Your task to perform on an android device: Add logitech g903 to the cart on amazon, then select checkout. Image 0: 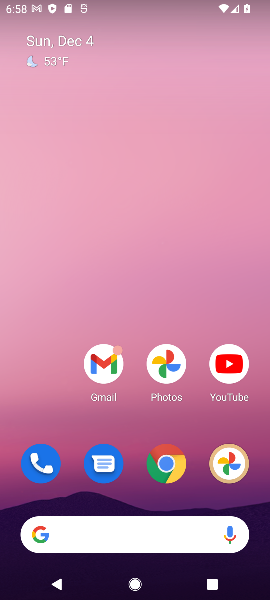
Step 0: click (143, 535)
Your task to perform on an android device: Add logitech g903 to the cart on amazon, then select checkout. Image 1: 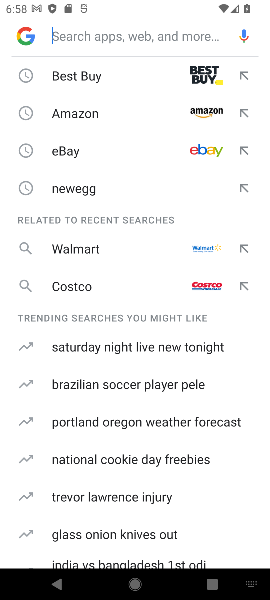
Step 1: click (57, 116)
Your task to perform on an android device: Add logitech g903 to the cart on amazon, then select checkout. Image 2: 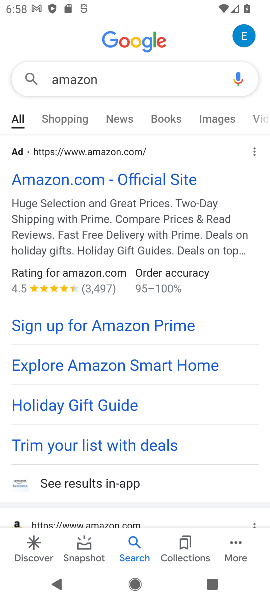
Step 2: click (78, 177)
Your task to perform on an android device: Add logitech g903 to the cart on amazon, then select checkout. Image 3: 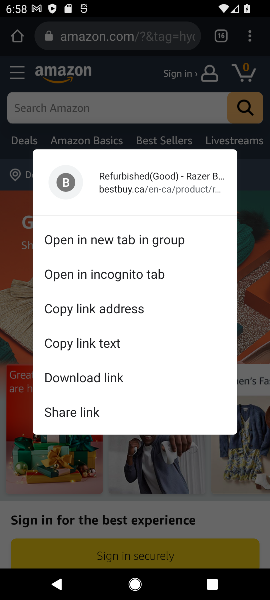
Step 3: click (16, 146)
Your task to perform on an android device: Add logitech g903 to the cart on amazon, then select checkout. Image 4: 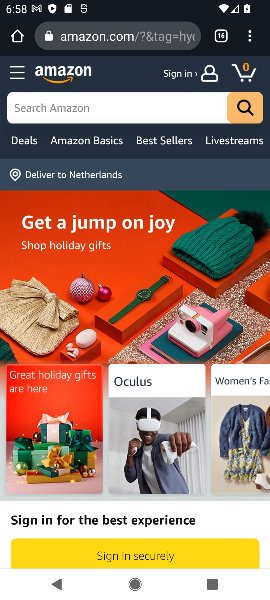
Step 4: click (81, 104)
Your task to perform on an android device: Add logitech g903 to the cart on amazon, then select checkout. Image 5: 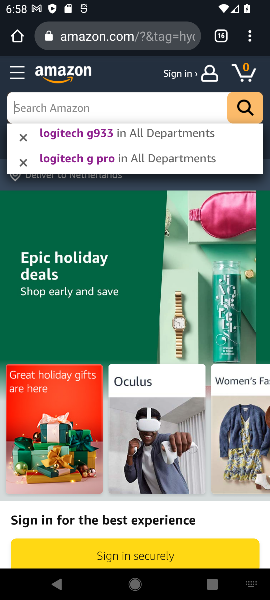
Step 5: type "logitech g903"
Your task to perform on an android device: Add logitech g903 to the cart on amazon, then select checkout. Image 6: 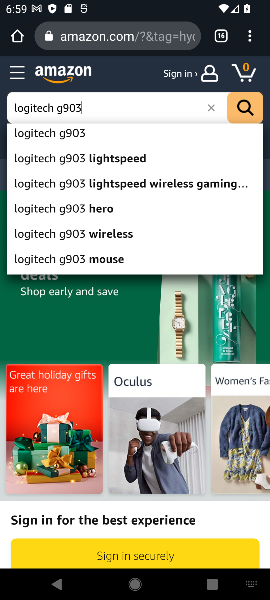
Step 6: click (246, 112)
Your task to perform on an android device: Add logitech g903 to the cart on amazon, then select checkout. Image 7: 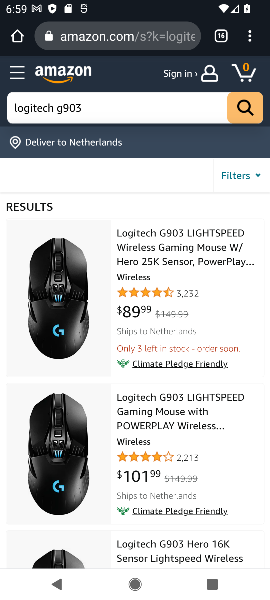
Step 7: click (231, 255)
Your task to perform on an android device: Add logitech g903 to the cart on amazon, then select checkout. Image 8: 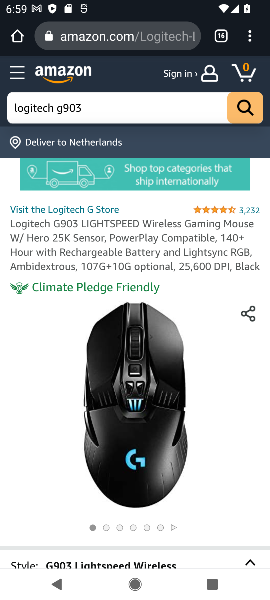
Step 8: drag from (213, 461) to (198, 253)
Your task to perform on an android device: Add logitech g903 to the cart on amazon, then select checkout. Image 9: 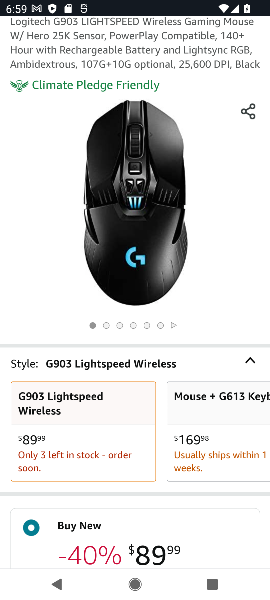
Step 9: drag from (211, 511) to (207, 388)
Your task to perform on an android device: Add logitech g903 to the cart on amazon, then select checkout. Image 10: 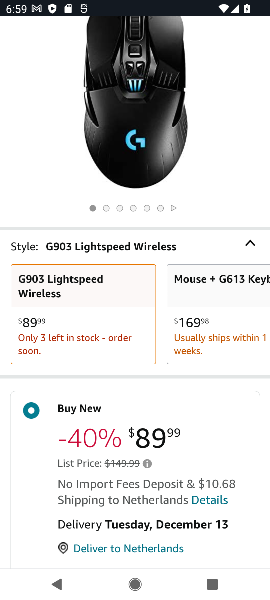
Step 10: drag from (213, 453) to (193, 198)
Your task to perform on an android device: Add logitech g903 to the cart on amazon, then select checkout. Image 11: 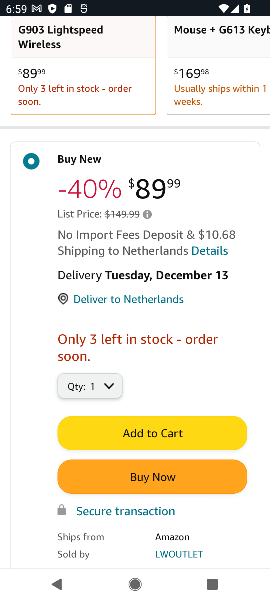
Step 11: click (191, 437)
Your task to perform on an android device: Add logitech g903 to the cart on amazon, then select checkout. Image 12: 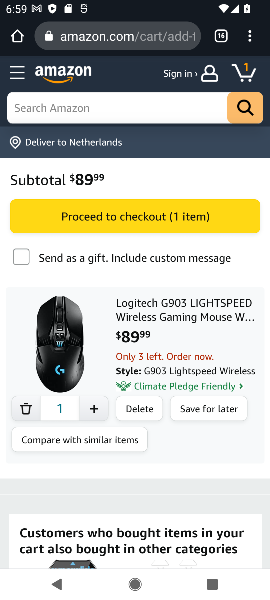
Step 12: task complete